Your task to perform on an android device: turn off priority inbox in the gmail app Image 0: 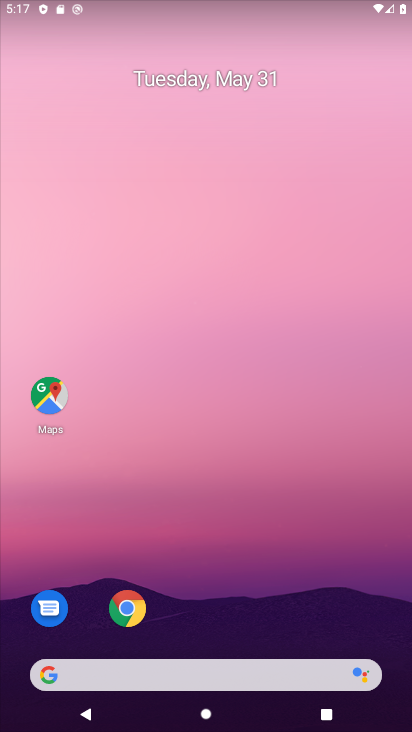
Step 0: drag from (248, 563) to (174, 58)
Your task to perform on an android device: turn off priority inbox in the gmail app Image 1: 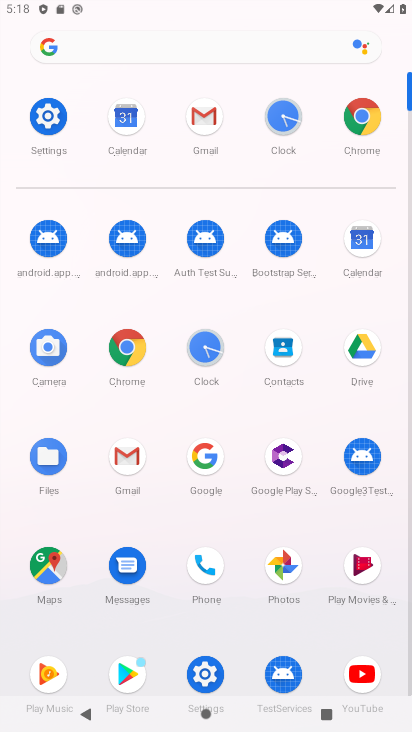
Step 1: click (201, 116)
Your task to perform on an android device: turn off priority inbox in the gmail app Image 2: 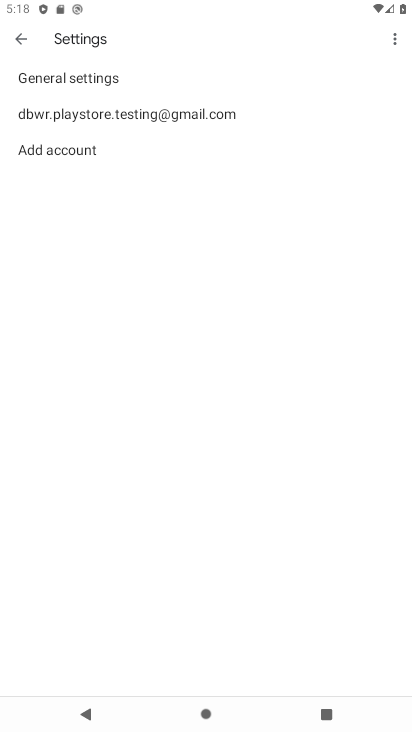
Step 2: click (201, 116)
Your task to perform on an android device: turn off priority inbox in the gmail app Image 3: 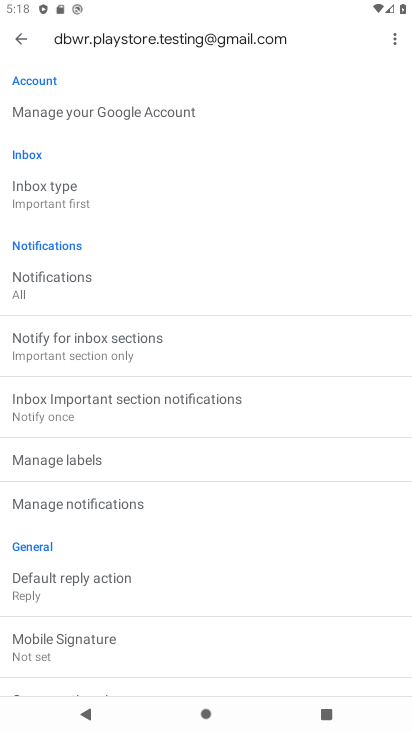
Step 3: click (74, 205)
Your task to perform on an android device: turn off priority inbox in the gmail app Image 4: 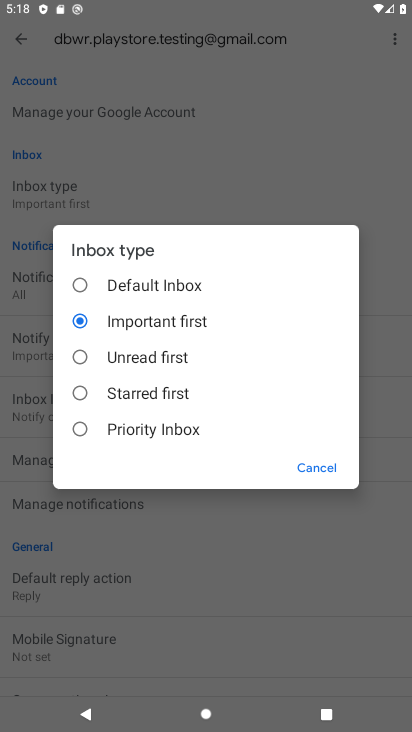
Step 4: click (75, 317)
Your task to perform on an android device: turn off priority inbox in the gmail app Image 5: 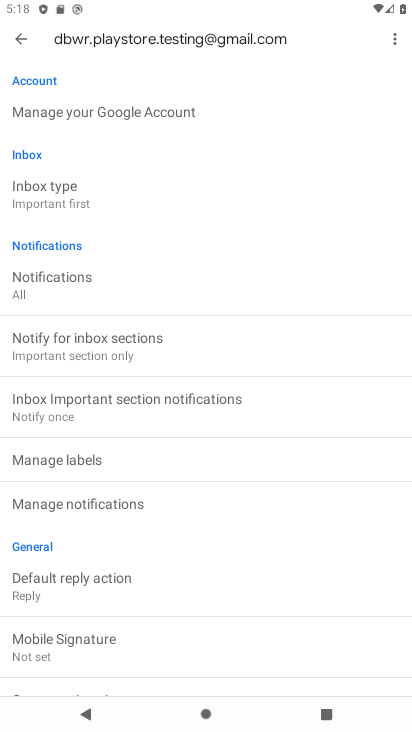
Step 5: task complete